Your task to perform on an android device: open a bookmark in the chrome app Image 0: 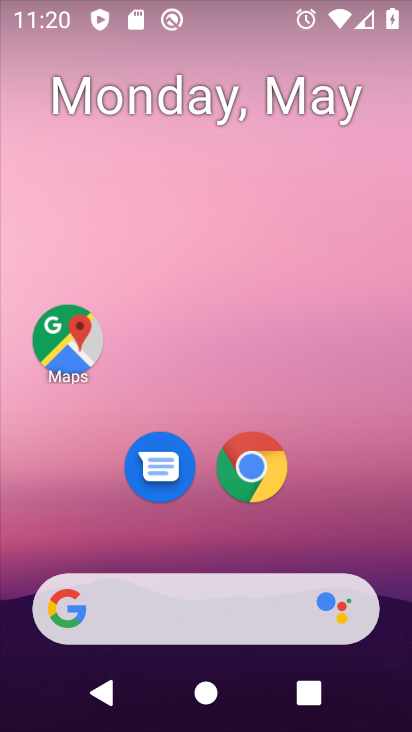
Step 0: click (258, 470)
Your task to perform on an android device: open a bookmark in the chrome app Image 1: 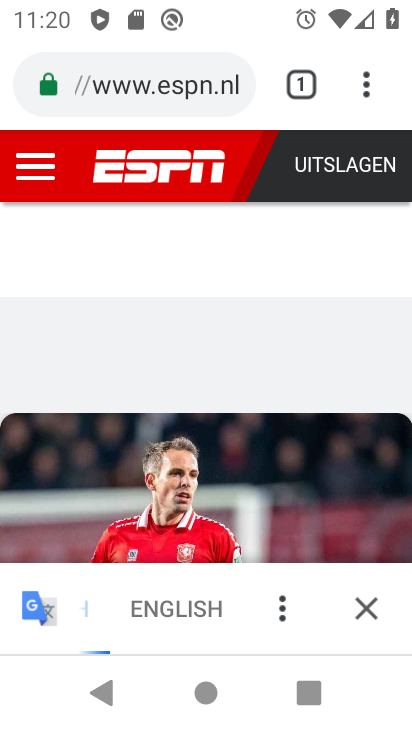
Step 1: click (367, 88)
Your task to perform on an android device: open a bookmark in the chrome app Image 2: 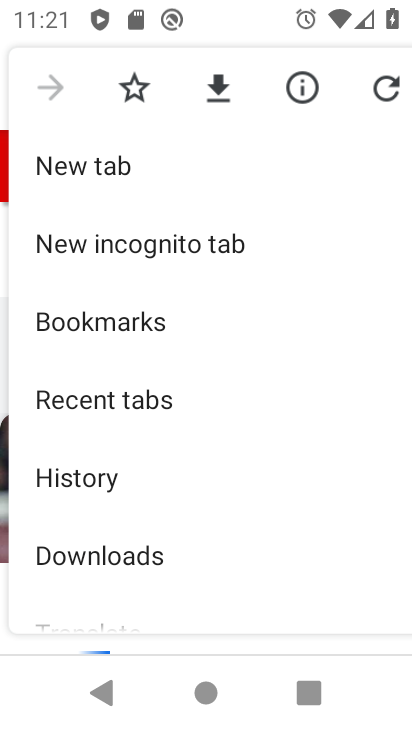
Step 2: drag from (274, 424) to (274, 388)
Your task to perform on an android device: open a bookmark in the chrome app Image 3: 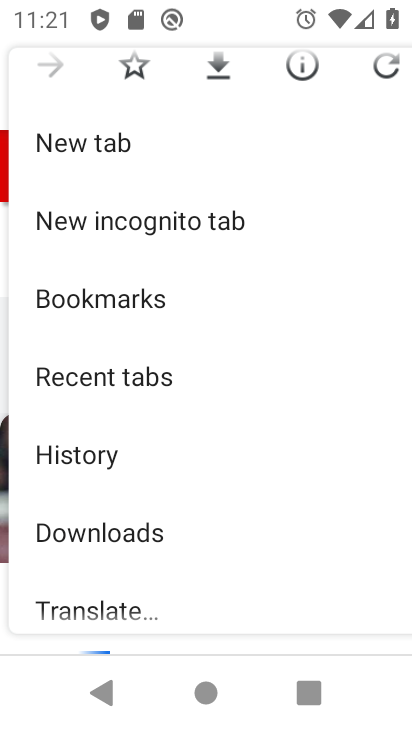
Step 3: click (260, 310)
Your task to perform on an android device: open a bookmark in the chrome app Image 4: 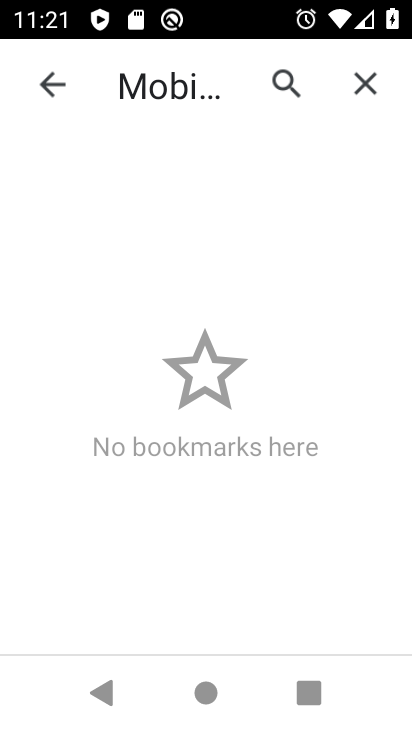
Step 4: task complete